Your task to perform on an android device: View the shopping cart on target.com. Add "bose soundsport free" to the cart on target.com Image 0: 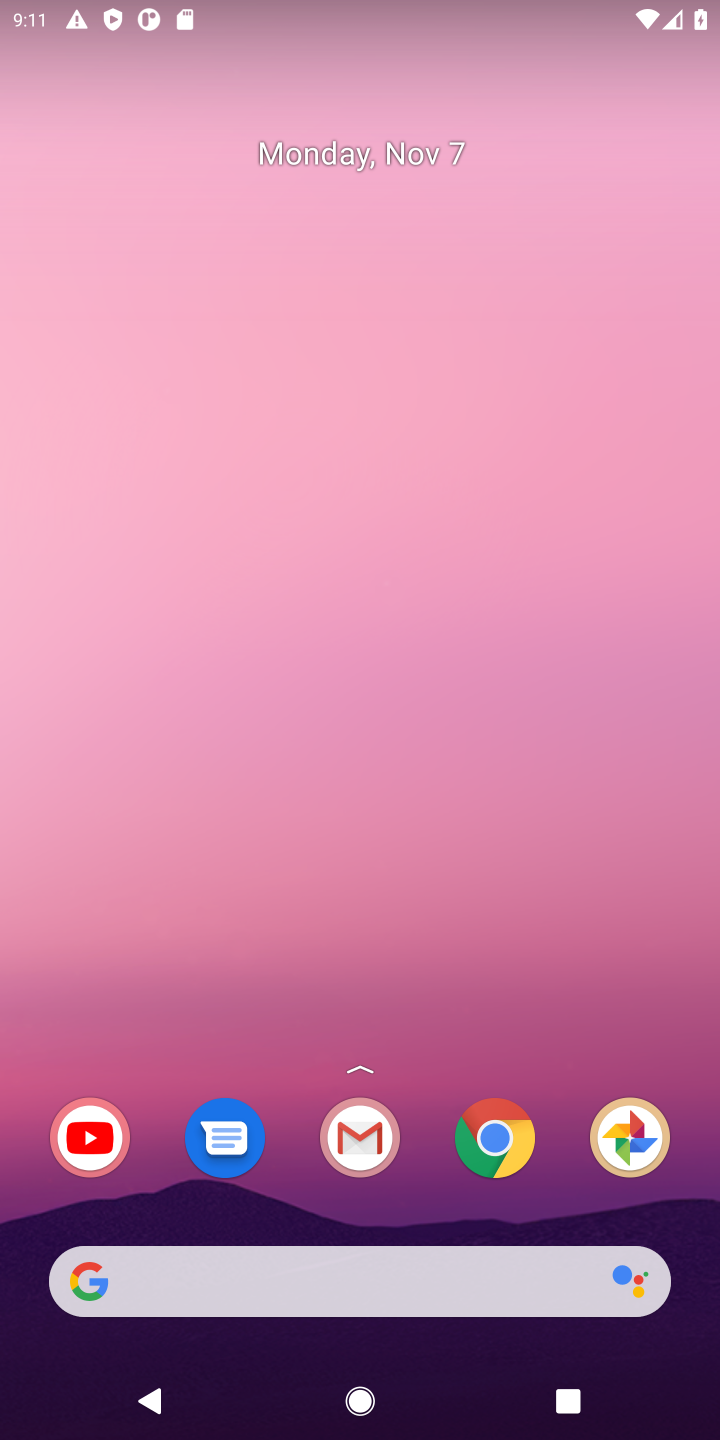
Step 0: press home button
Your task to perform on an android device: View the shopping cart on target.com. Add "bose soundsport free" to the cart on target.com Image 1: 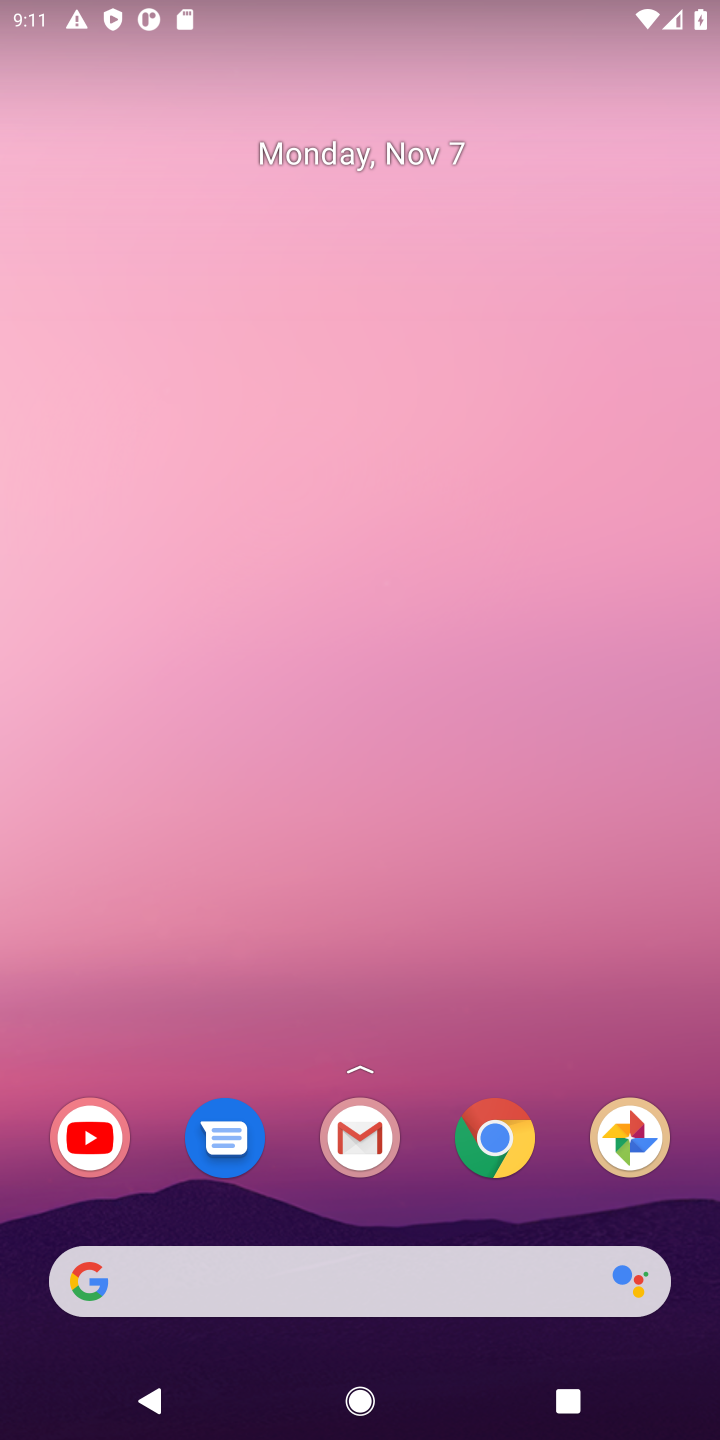
Step 1: click (488, 1152)
Your task to perform on an android device: View the shopping cart on target.com. Add "bose soundsport free" to the cart on target.com Image 2: 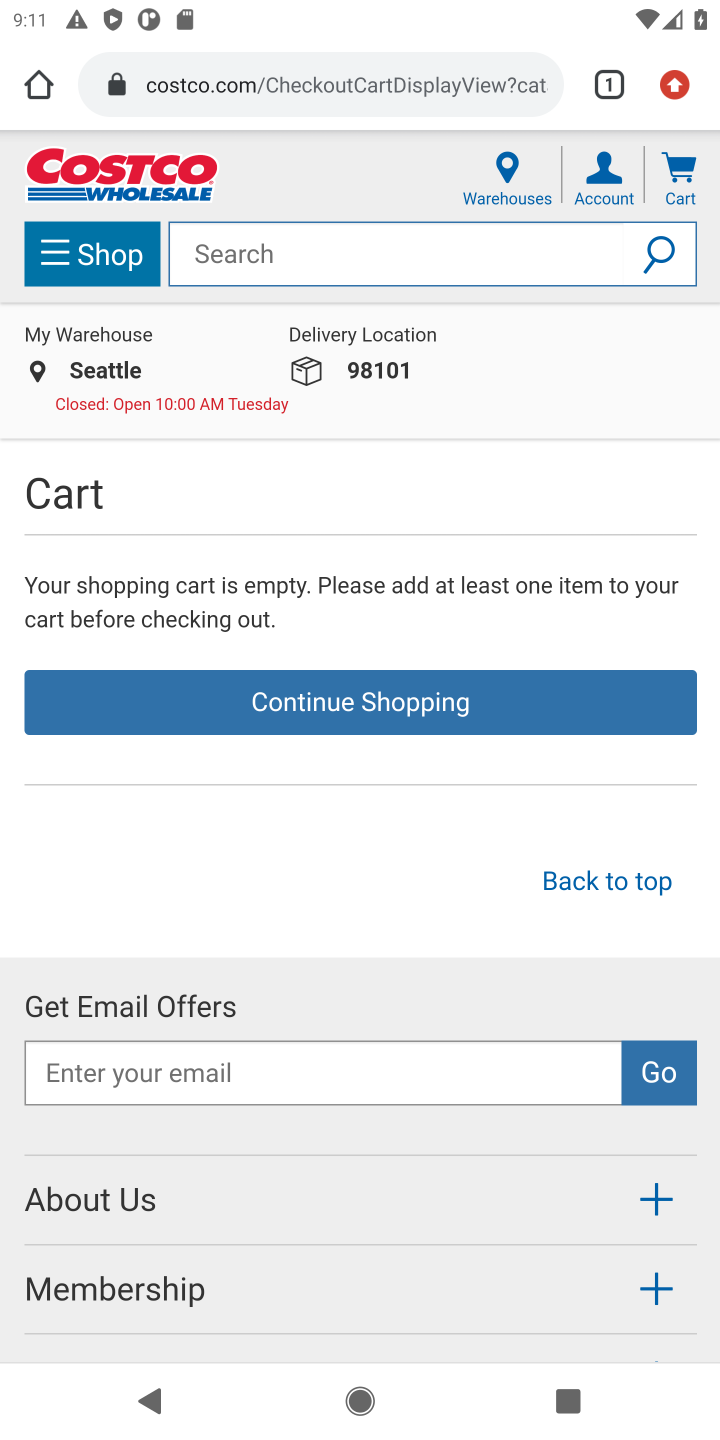
Step 2: click (348, 88)
Your task to perform on an android device: View the shopping cart on target.com. Add "bose soundsport free" to the cart on target.com Image 3: 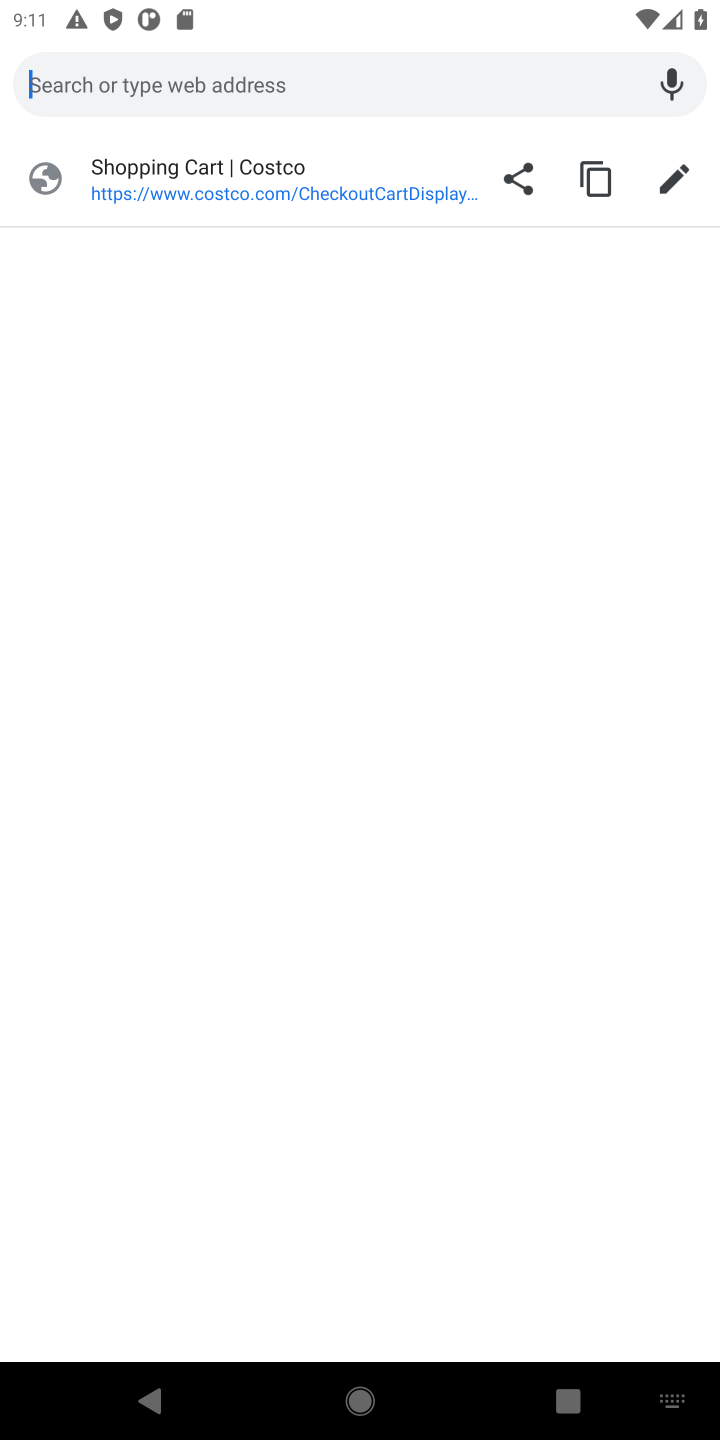
Step 3: type "target"
Your task to perform on an android device: View the shopping cart on target.com. Add "bose soundsport free" to the cart on target.com Image 4: 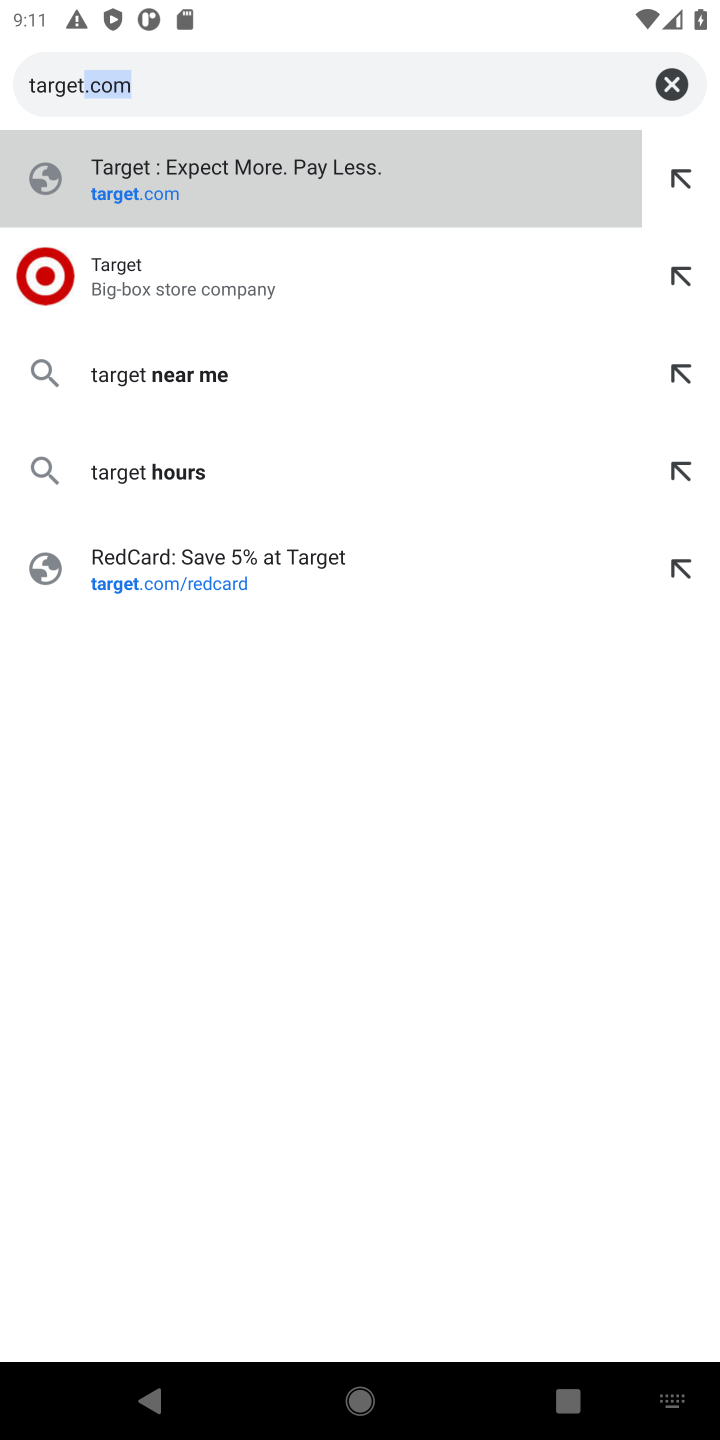
Step 4: type ""
Your task to perform on an android device: View the shopping cart on target.com. Add "bose soundsport free" to the cart on target.com Image 5: 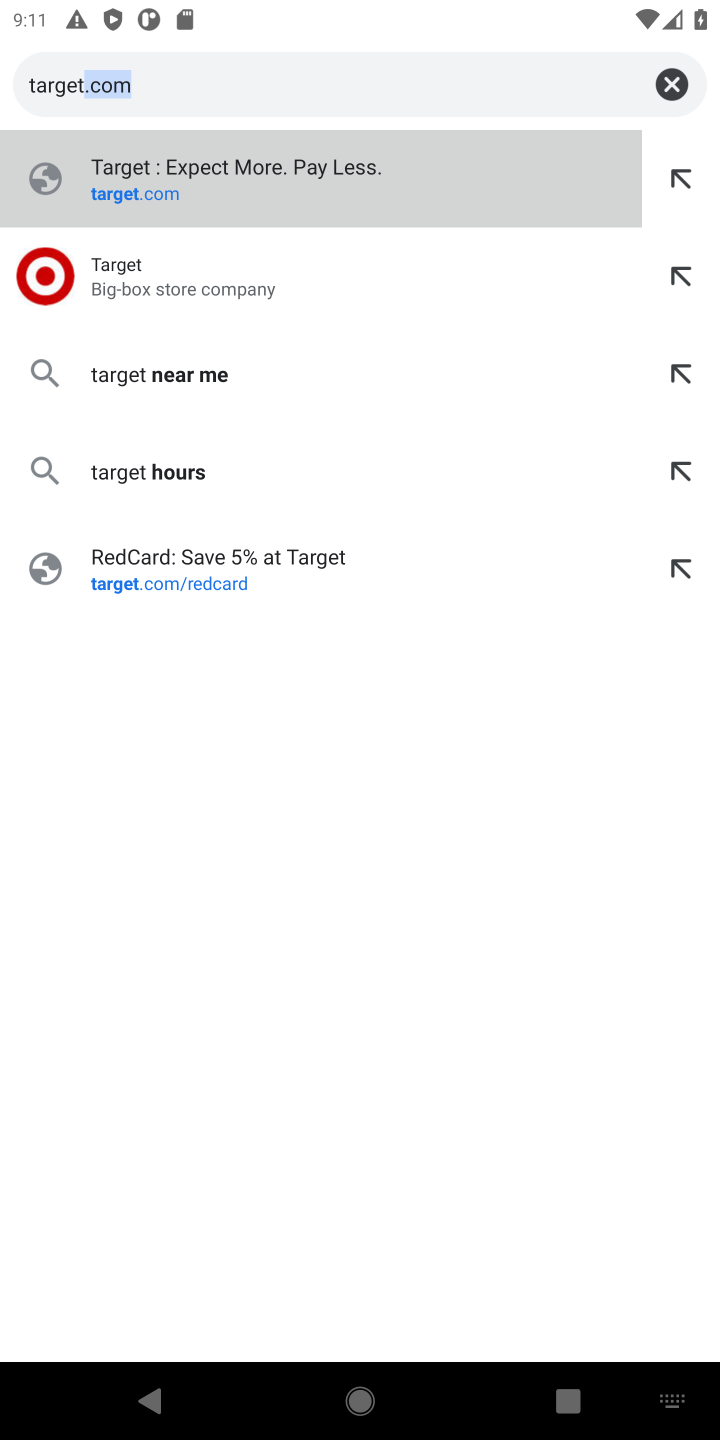
Step 5: click (148, 283)
Your task to perform on an android device: View the shopping cart on target.com. Add "bose soundsport free" to the cart on target.com Image 6: 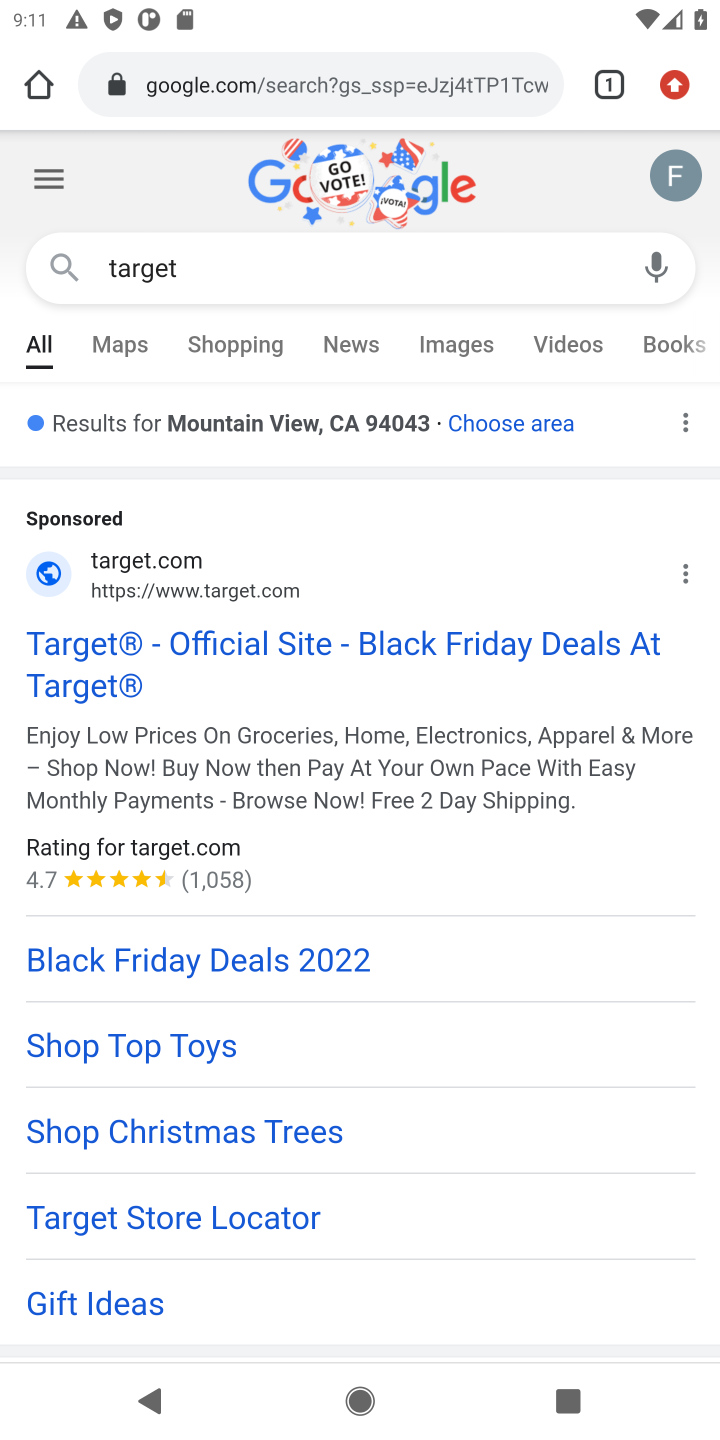
Step 6: click (222, 635)
Your task to perform on an android device: View the shopping cart on target.com. Add "bose soundsport free" to the cart on target.com Image 7: 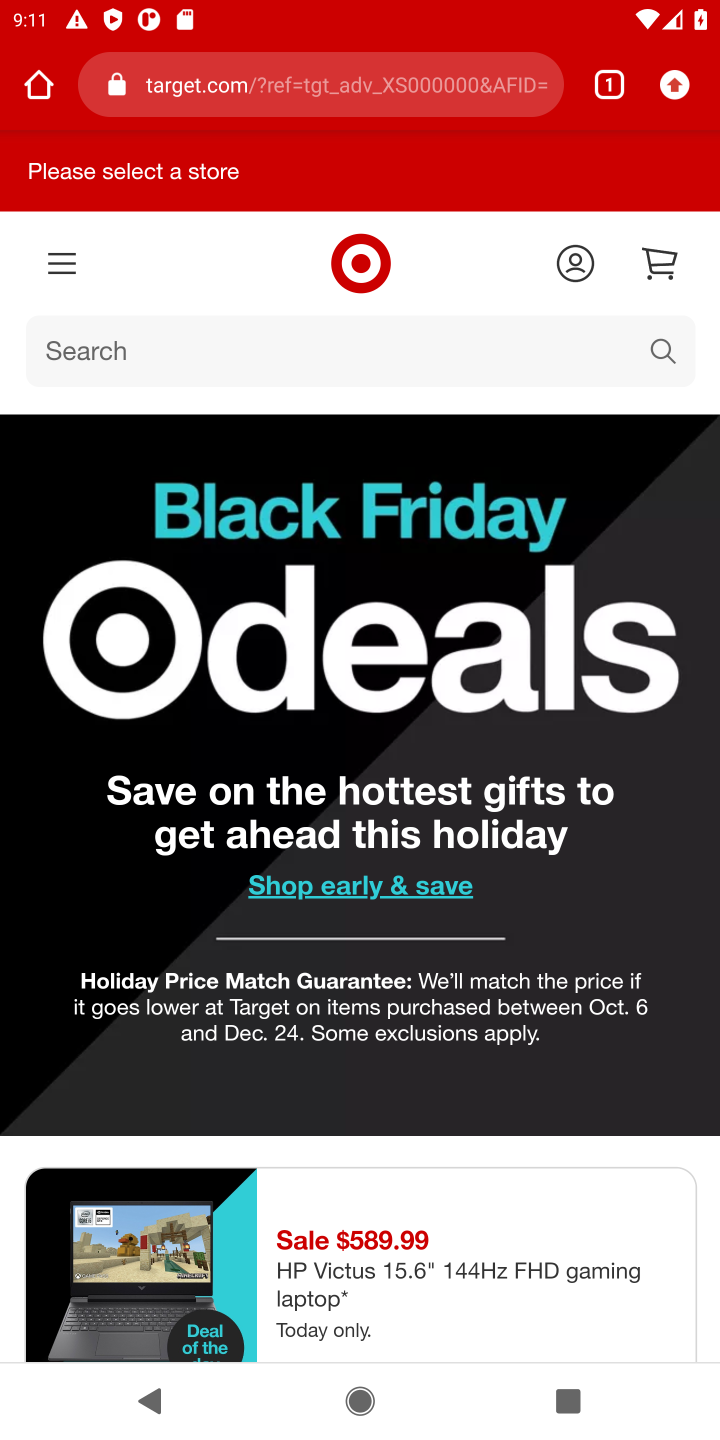
Step 7: click (371, 358)
Your task to perform on an android device: View the shopping cart on target.com. Add "bose soundsport free" to the cart on target.com Image 8: 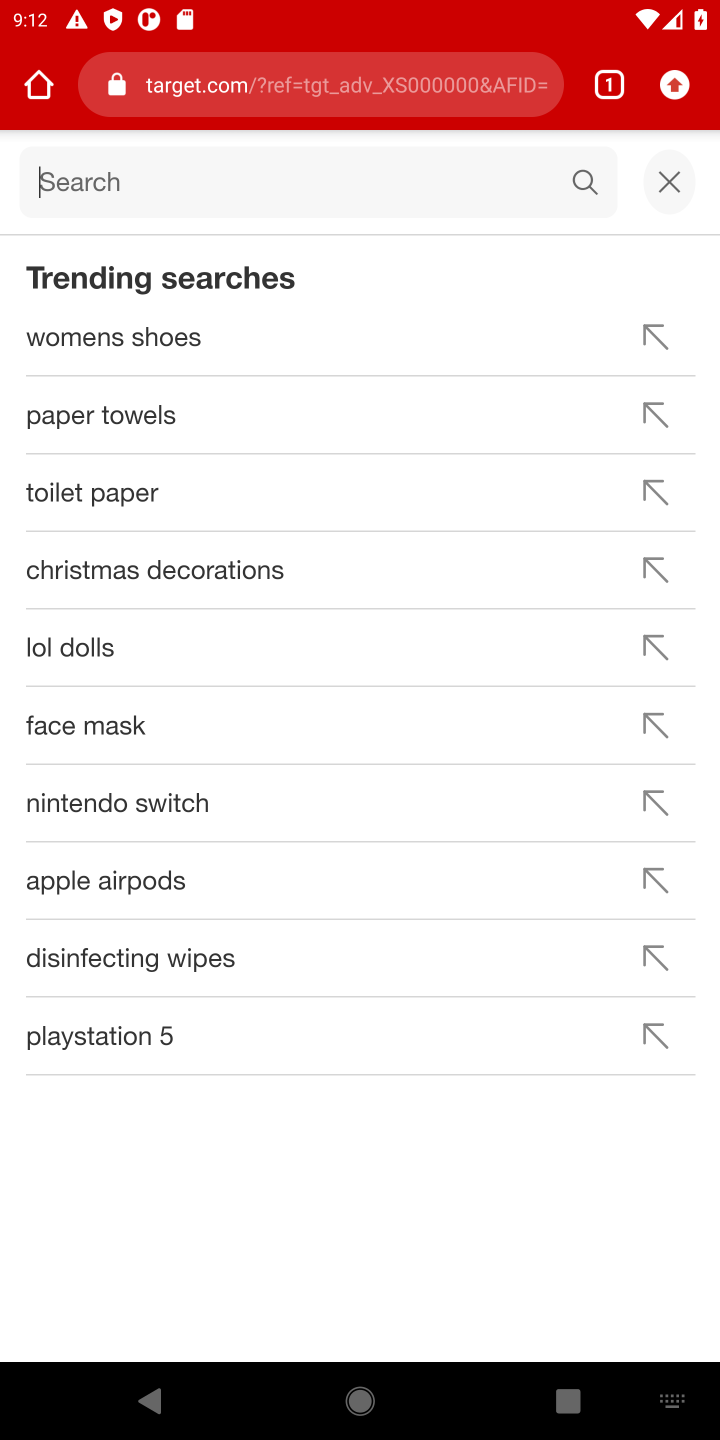
Step 8: type "bose soundsport free"
Your task to perform on an android device: View the shopping cart on target.com. Add "bose soundsport free" to the cart on target.com Image 9: 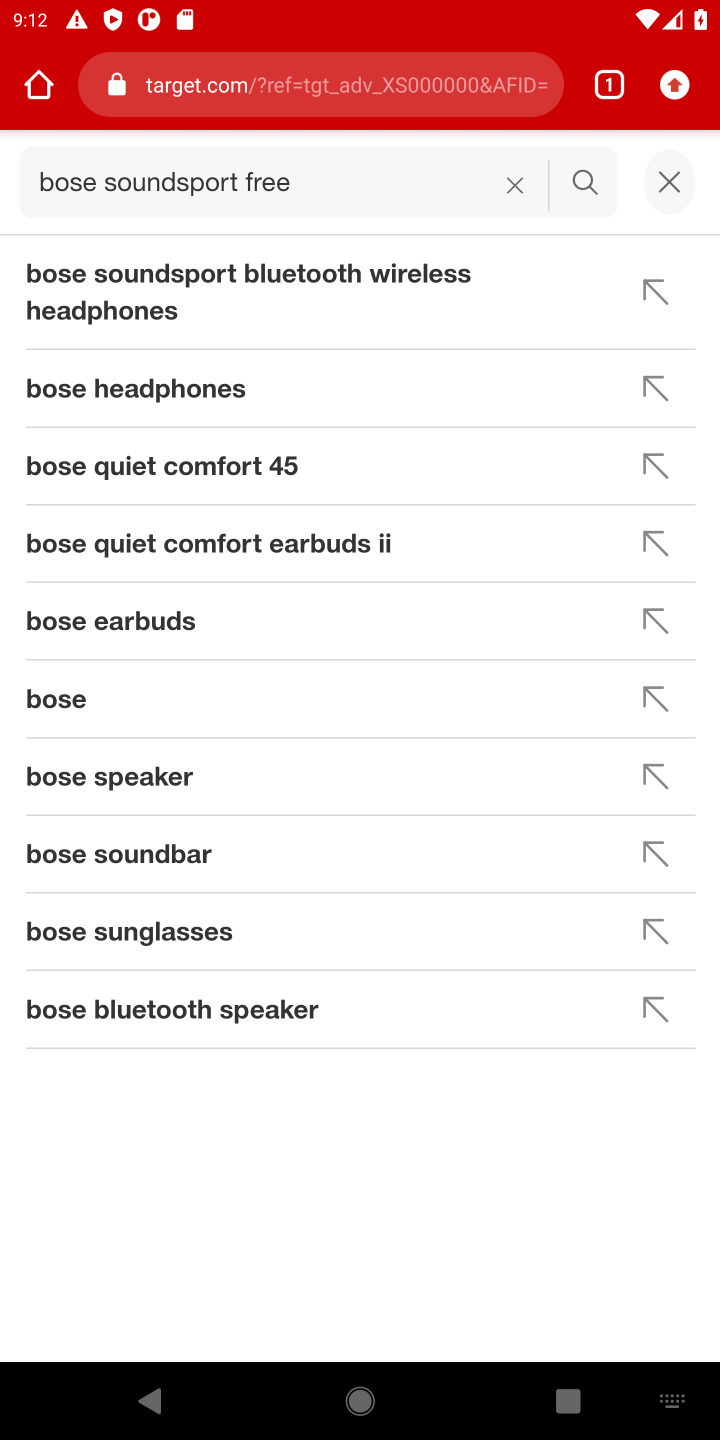
Step 9: click (166, 310)
Your task to perform on an android device: View the shopping cart on target.com. Add "bose soundsport free" to the cart on target.com Image 10: 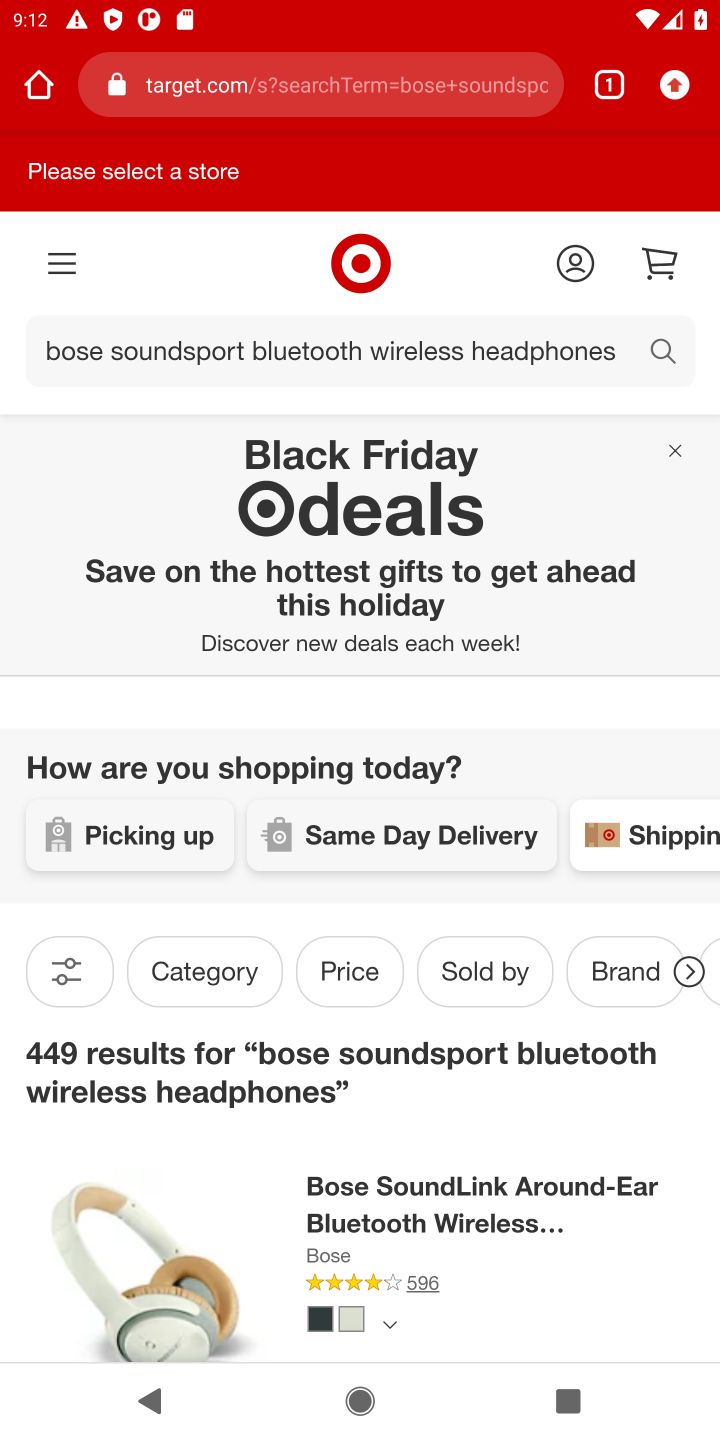
Step 10: click (420, 1212)
Your task to perform on an android device: View the shopping cart on target.com. Add "bose soundsport free" to the cart on target.com Image 11: 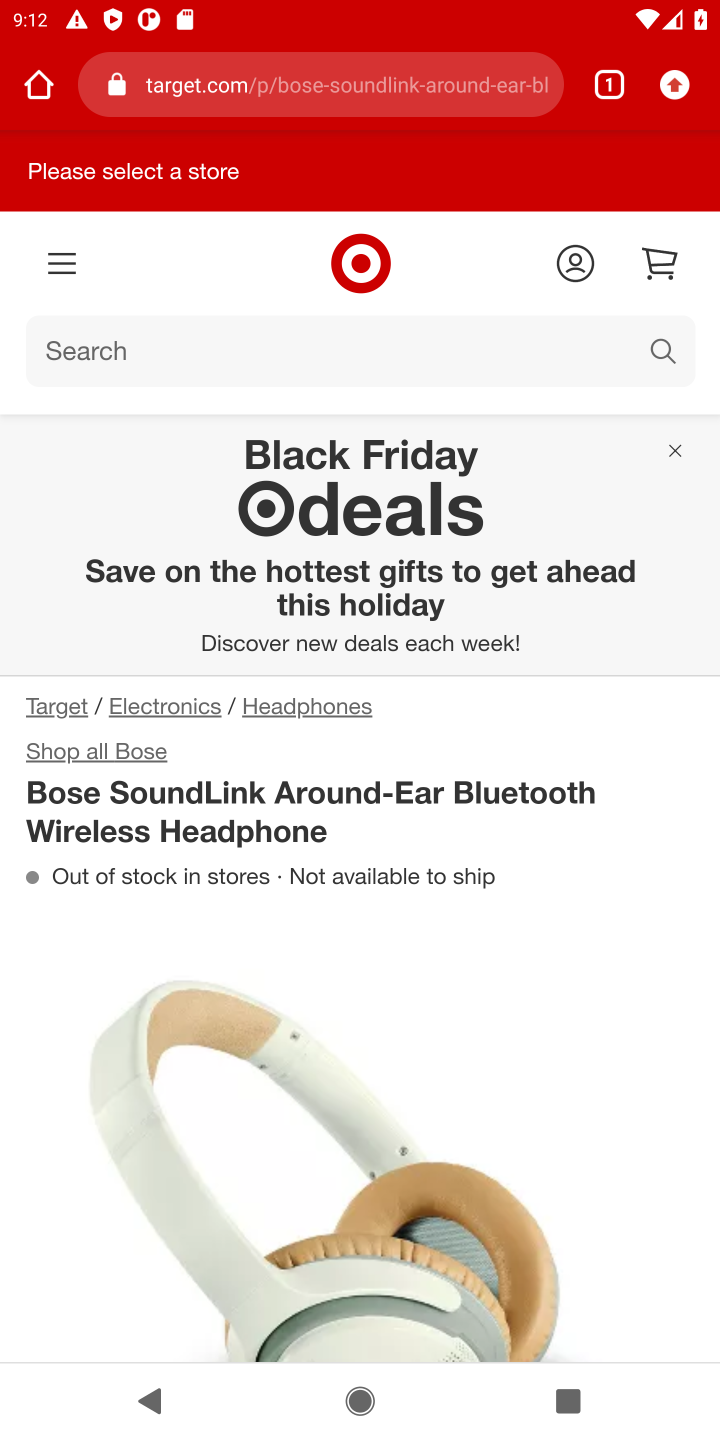
Step 11: drag from (463, 1064) to (393, 400)
Your task to perform on an android device: View the shopping cart on target.com. Add "bose soundsport free" to the cart on target.com Image 12: 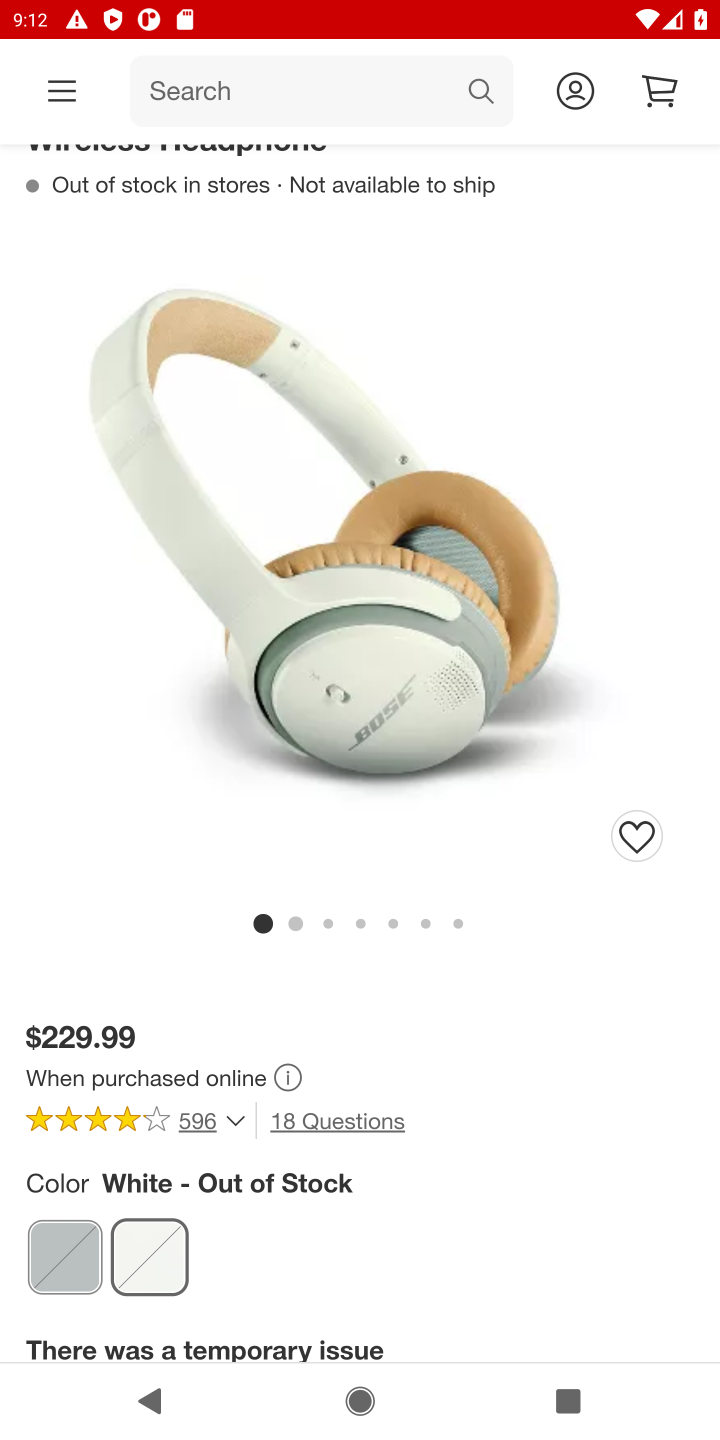
Step 12: drag from (366, 1158) to (446, 439)
Your task to perform on an android device: View the shopping cart on target.com. Add "bose soundsport free" to the cart on target.com Image 13: 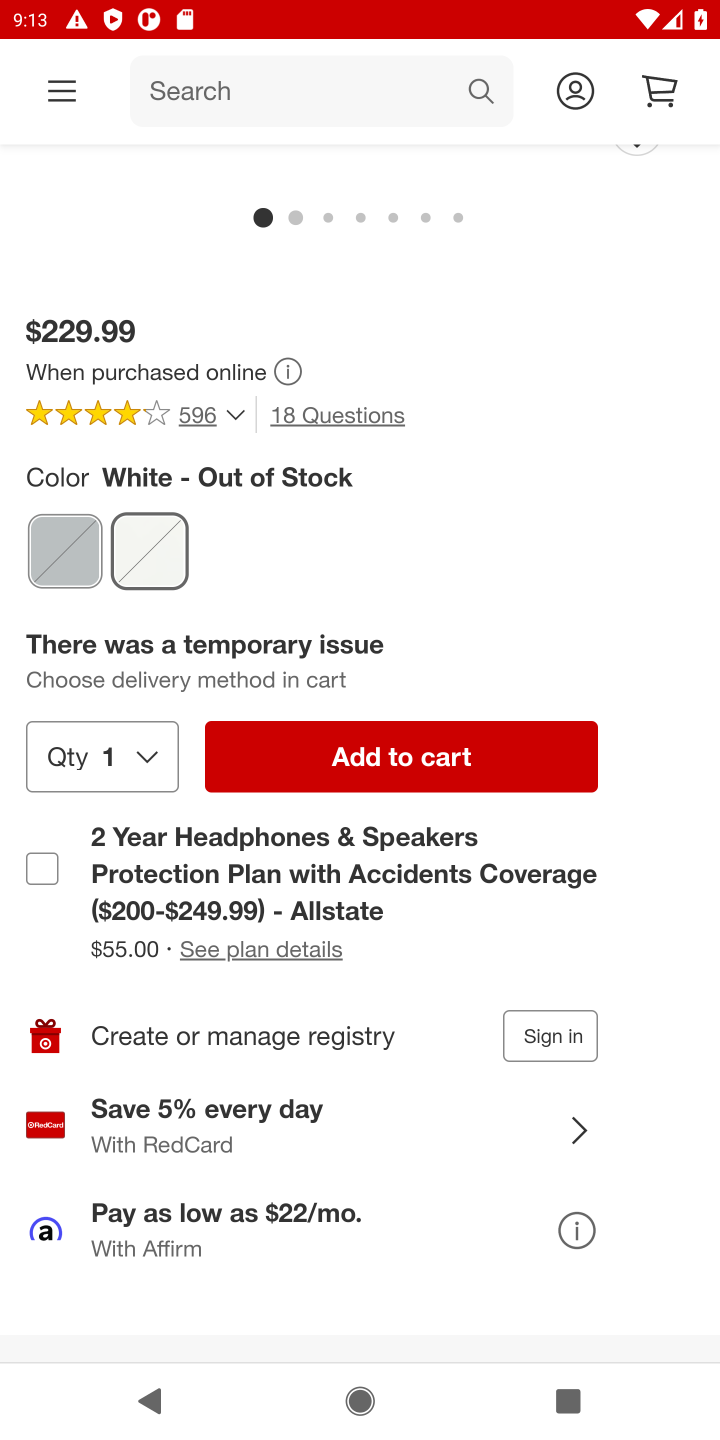
Step 13: click (407, 768)
Your task to perform on an android device: View the shopping cart on target.com. Add "bose soundsport free" to the cart on target.com Image 14: 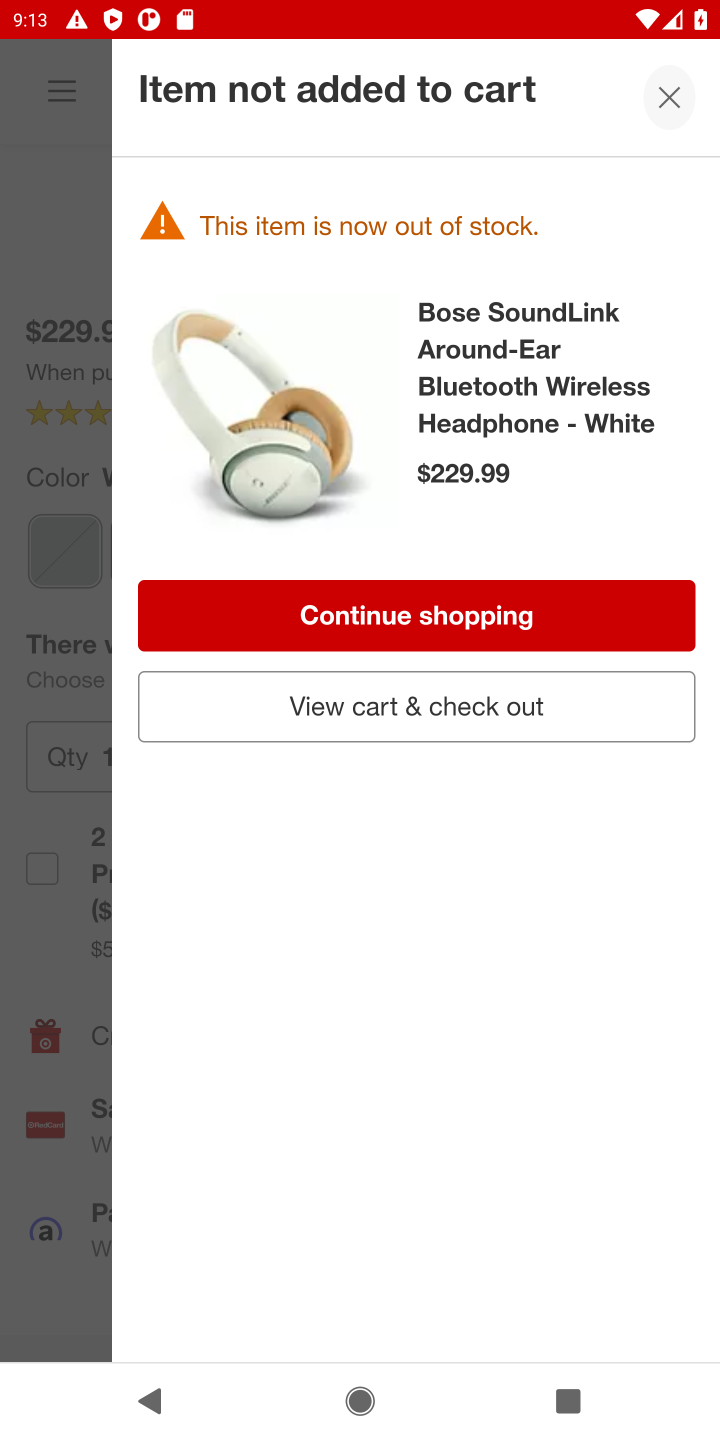
Step 14: click (302, 699)
Your task to perform on an android device: View the shopping cart on target.com. Add "bose soundsport free" to the cart on target.com Image 15: 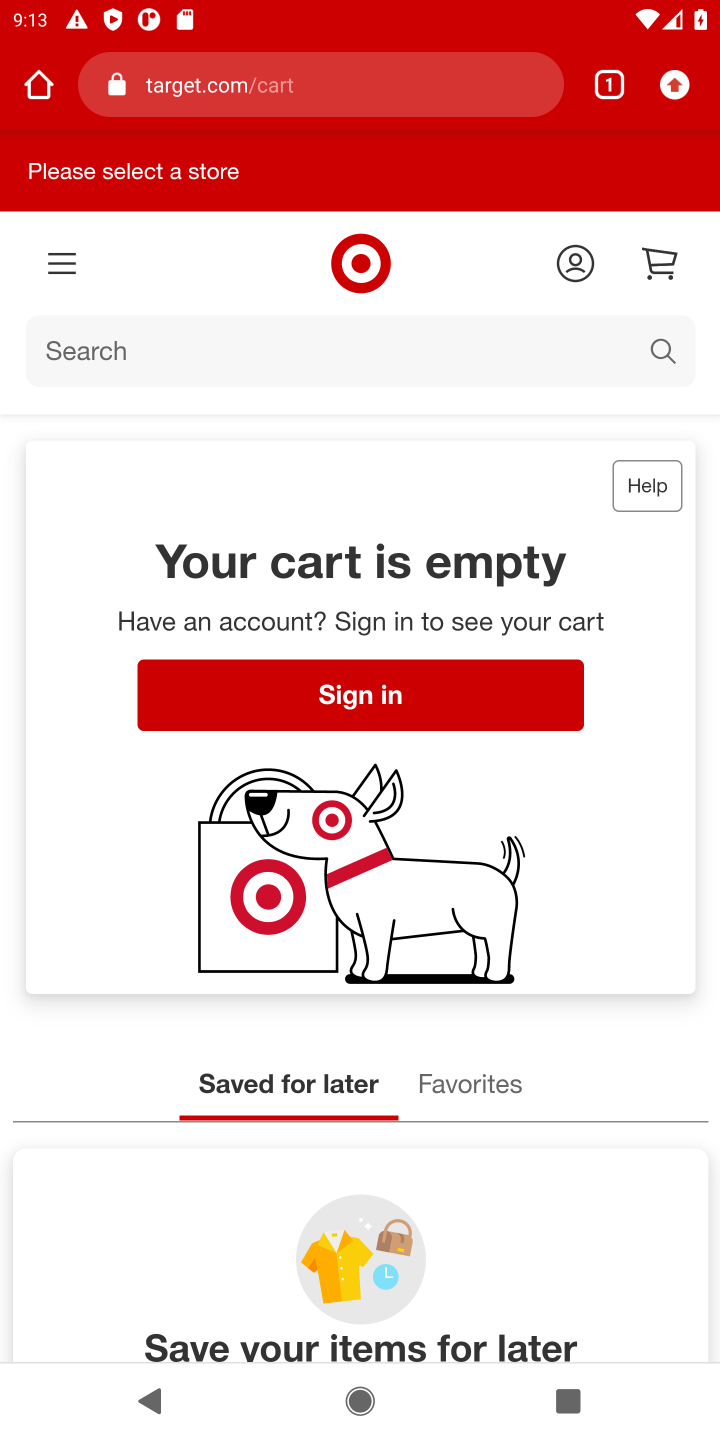
Step 15: press back button
Your task to perform on an android device: View the shopping cart on target.com. Add "bose soundsport free" to the cart on target.com Image 16: 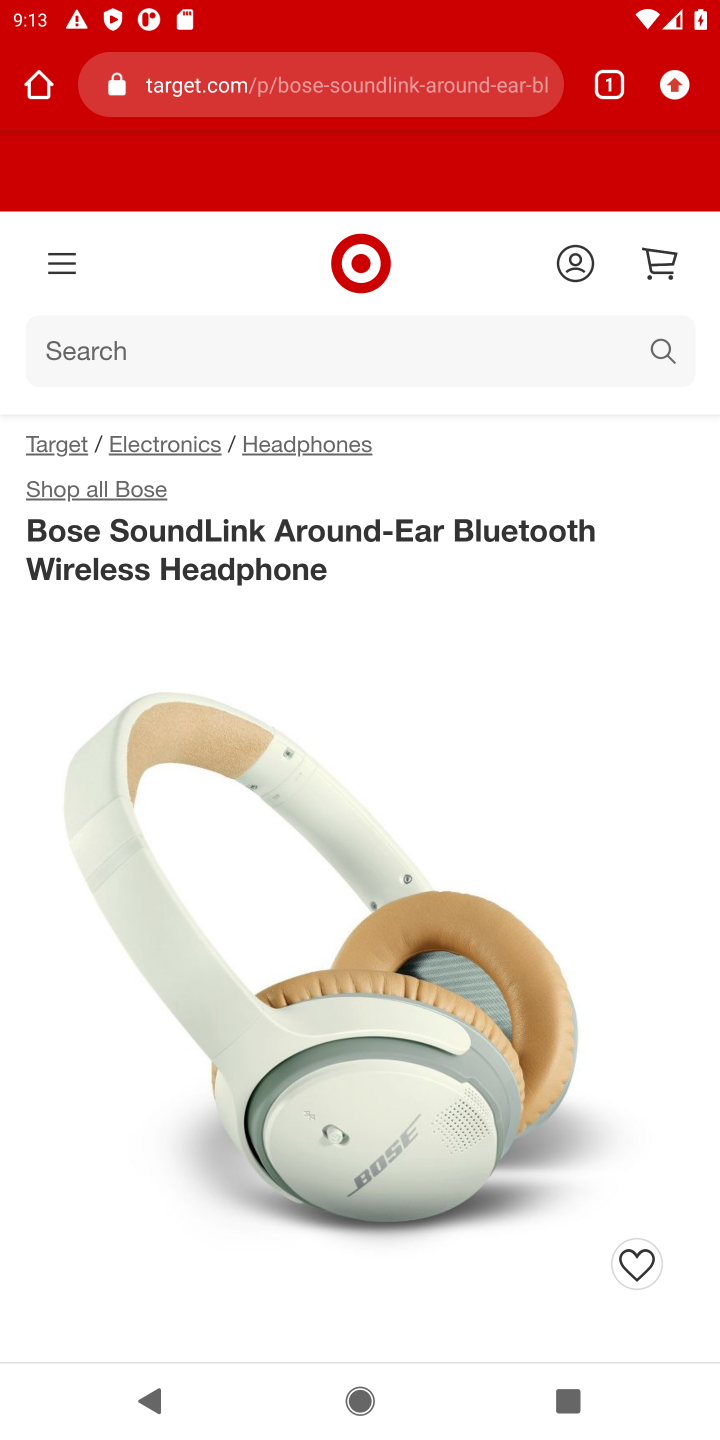
Step 16: drag from (222, 921) to (339, 263)
Your task to perform on an android device: View the shopping cart on target.com. Add "bose soundsport free" to the cart on target.com Image 17: 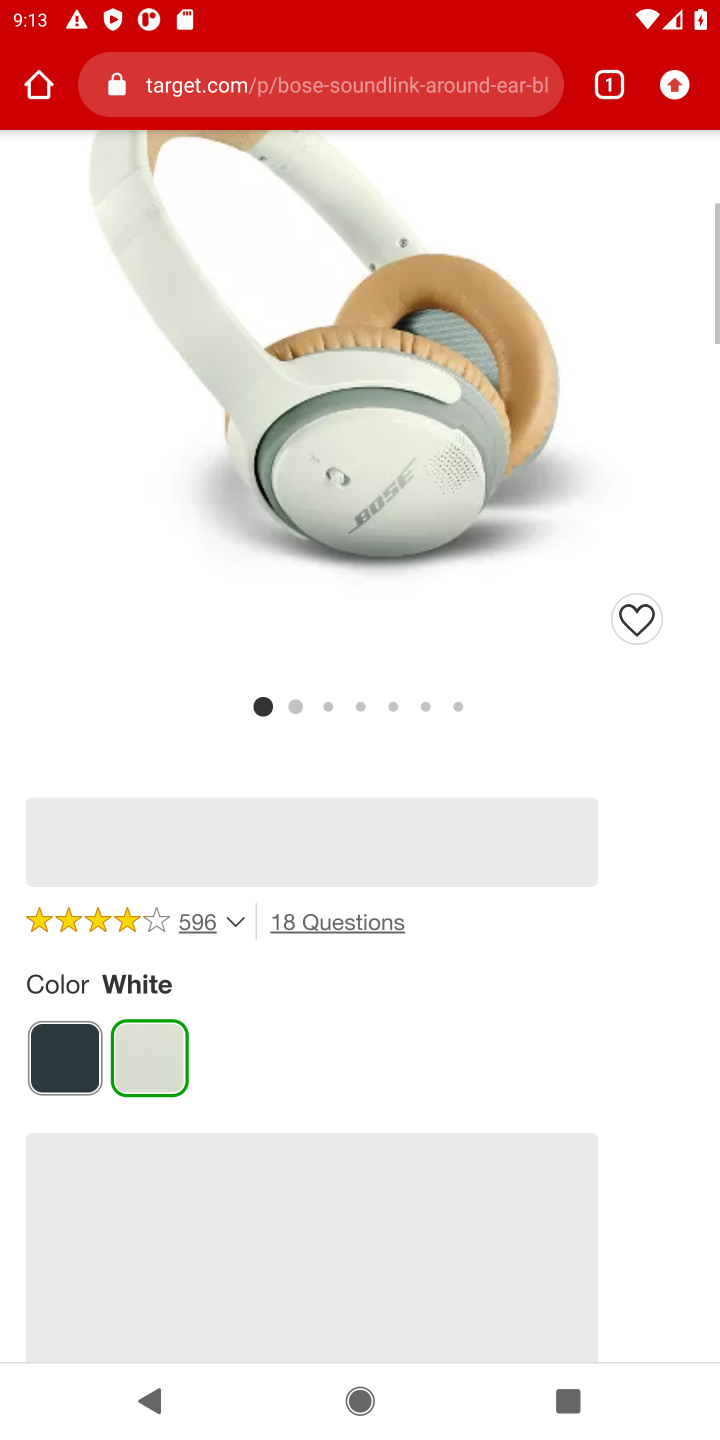
Step 17: drag from (179, 1094) to (239, 242)
Your task to perform on an android device: View the shopping cart on target.com. Add "bose soundsport free" to the cart on target.com Image 18: 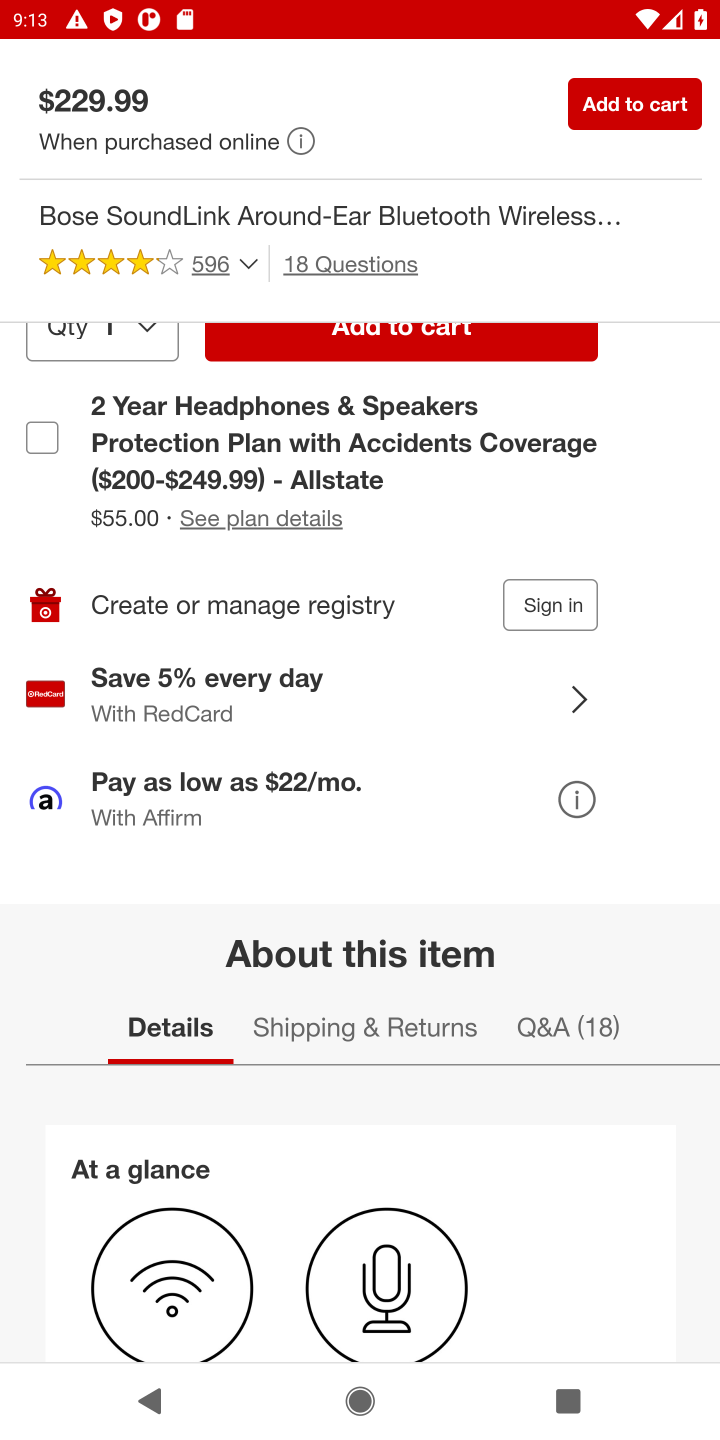
Step 18: click (361, 330)
Your task to perform on an android device: View the shopping cart on target.com. Add "bose soundsport free" to the cart on target.com Image 19: 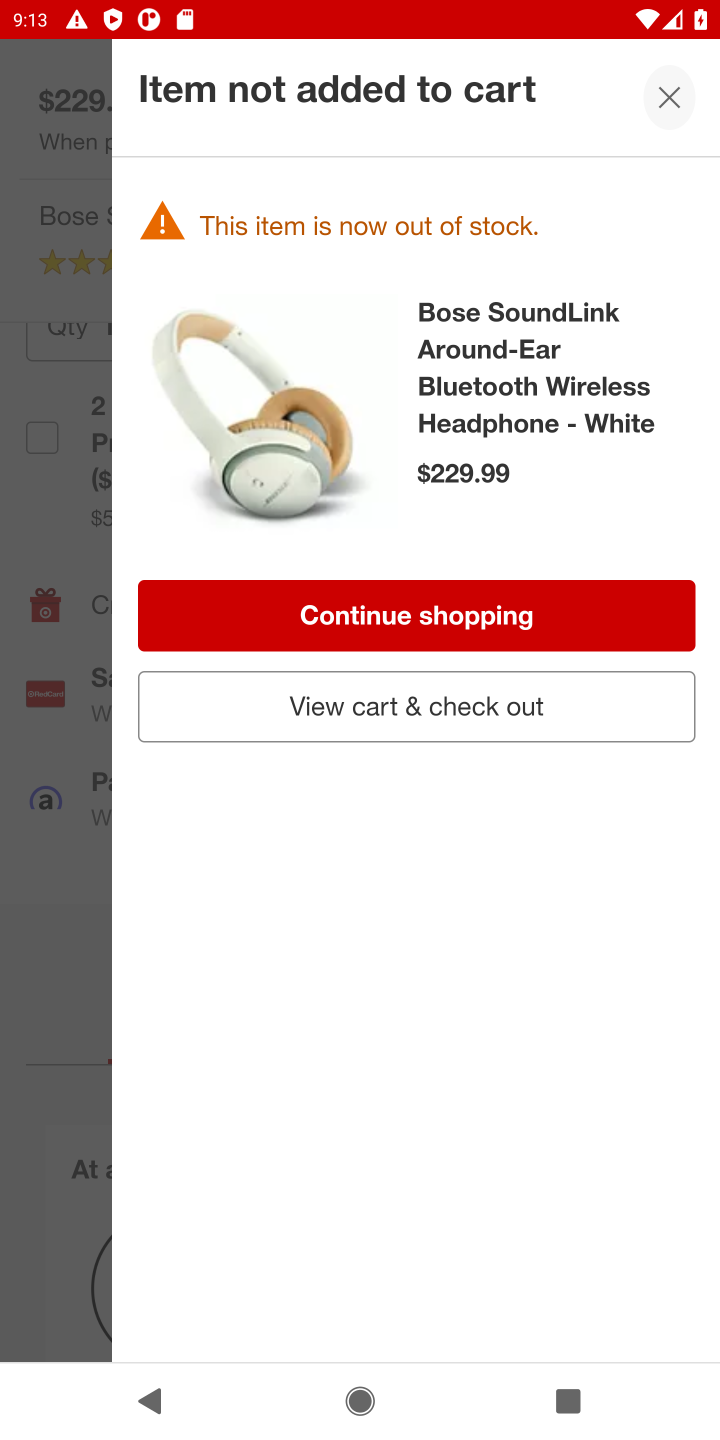
Step 19: click (420, 602)
Your task to perform on an android device: View the shopping cart on target.com. Add "bose soundsport free" to the cart on target.com Image 20: 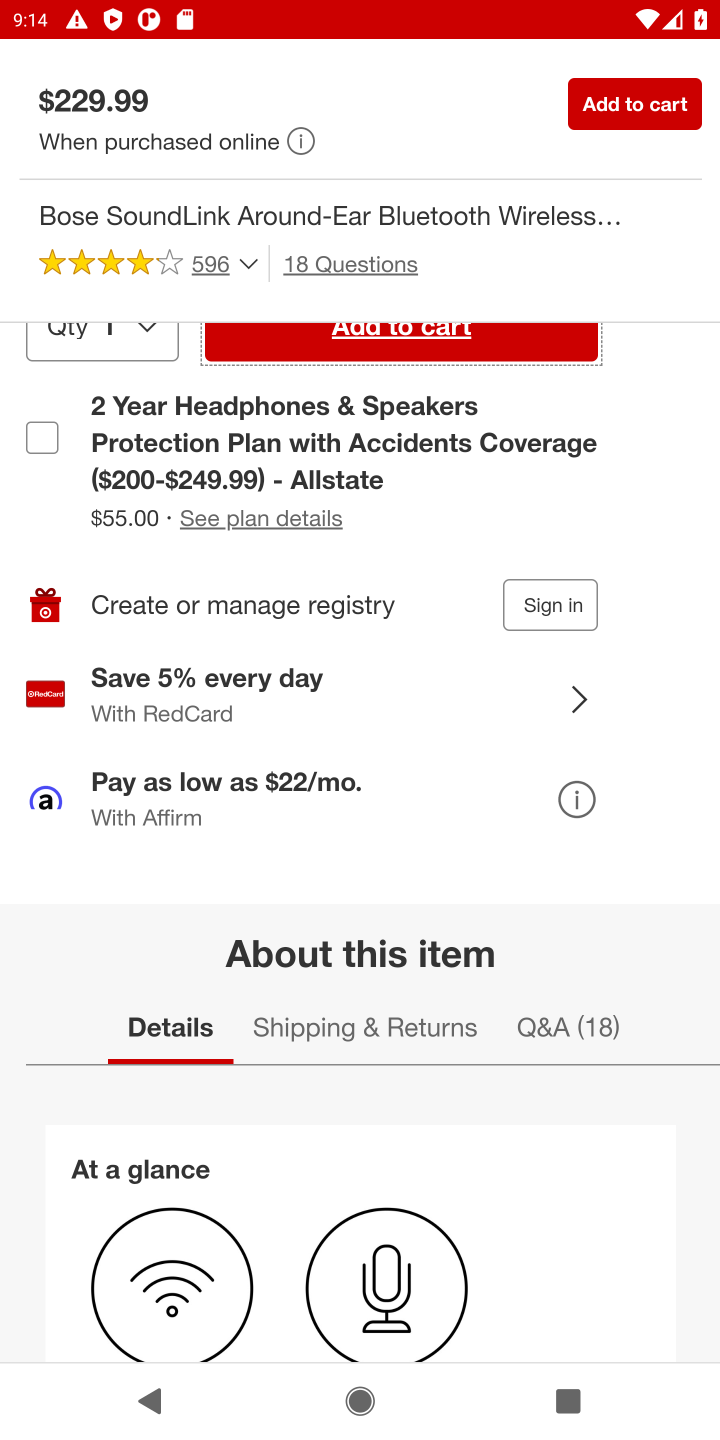
Step 20: drag from (331, 636) to (349, 1084)
Your task to perform on an android device: View the shopping cart on target.com. Add "bose soundsport free" to the cart on target.com Image 21: 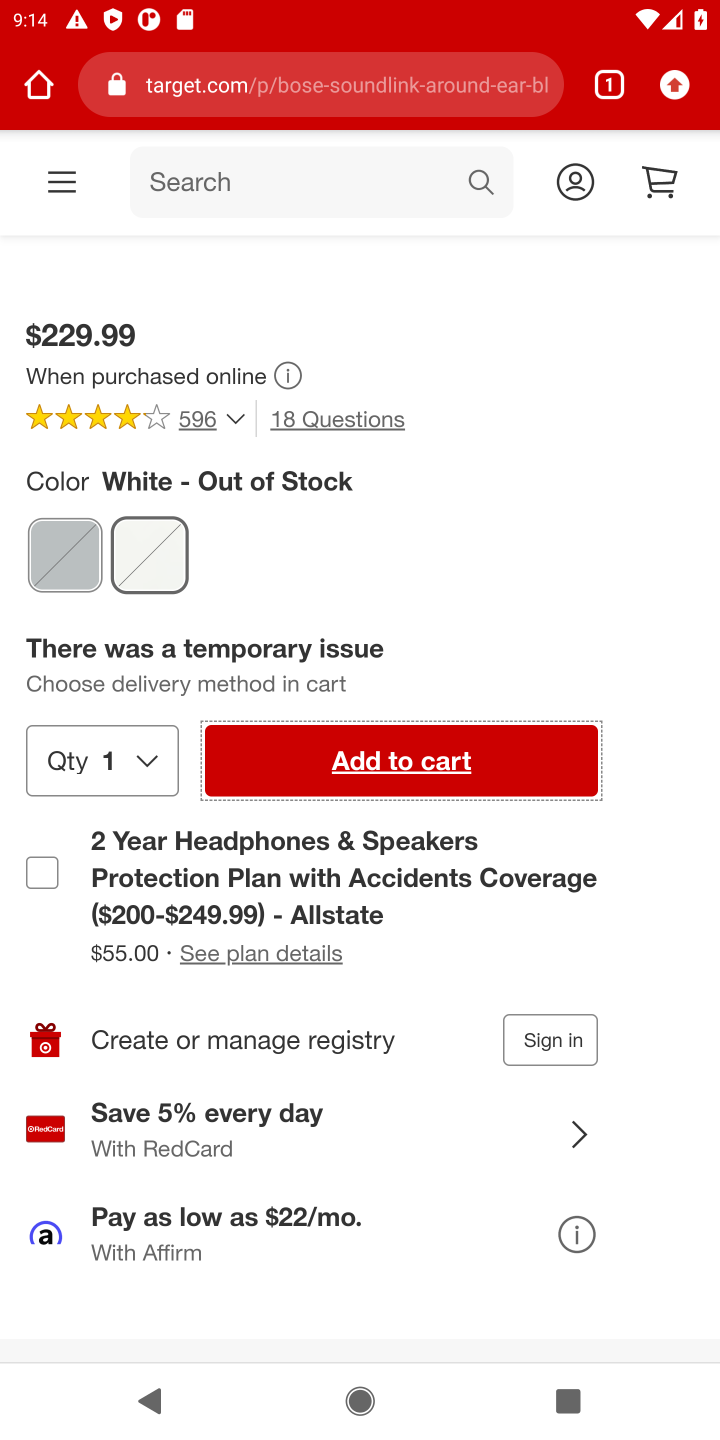
Step 21: click (410, 778)
Your task to perform on an android device: View the shopping cart on target.com. Add "bose soundsport free" to the cart on target.com Image 22: 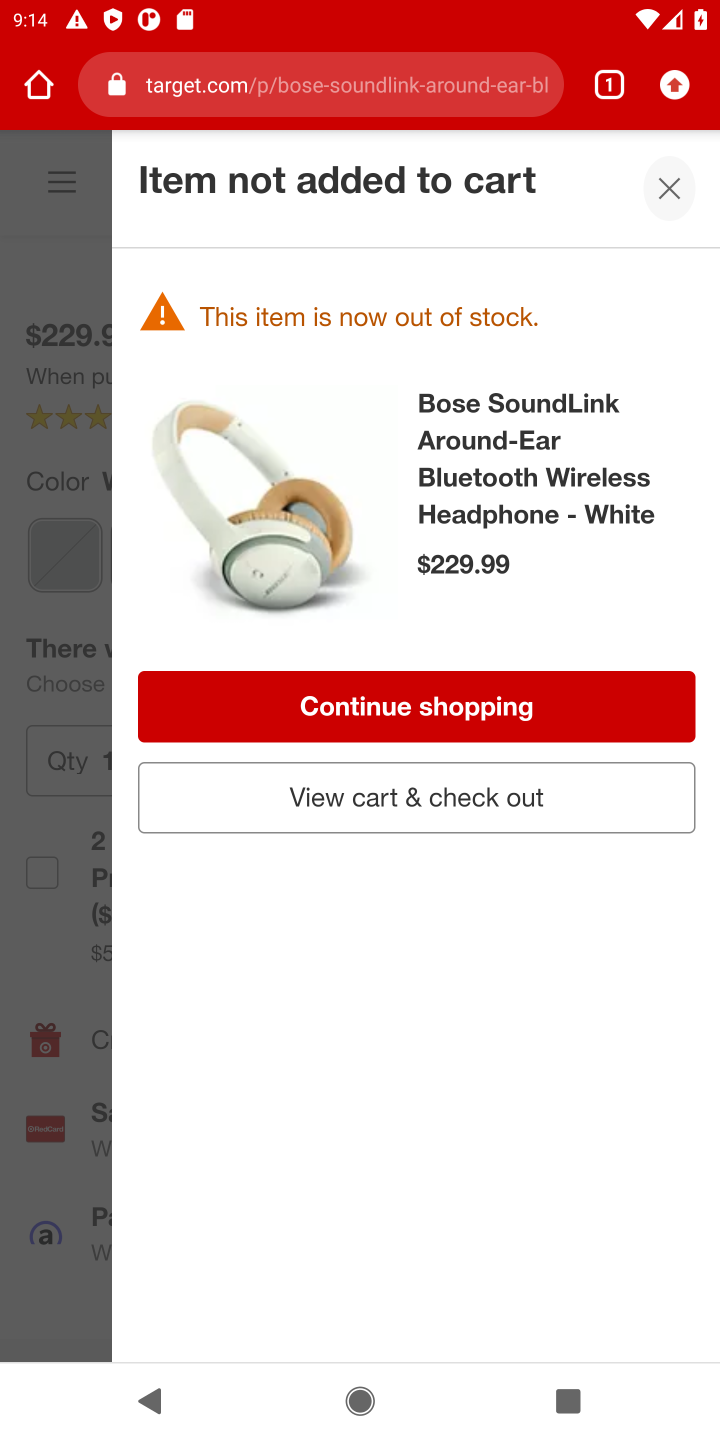
Step 22: task complete